Your task to perform on an android device: Search for seafood restaurants on Google Maps Image 0: 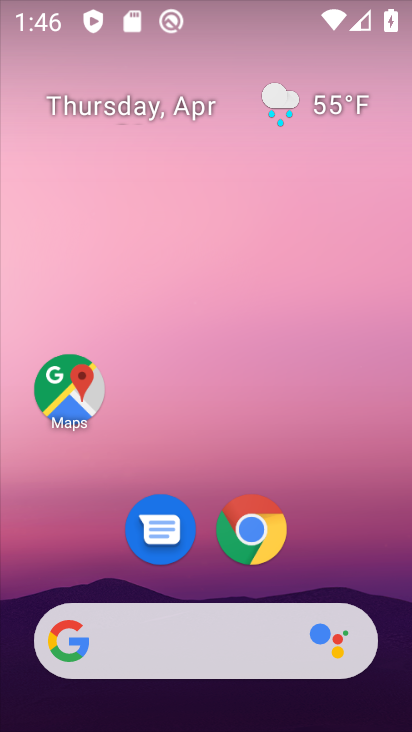
Step 0: click (45, 402)
Your task to perform on an android device: Search for seafood restaurants on Google Maps Image 1: 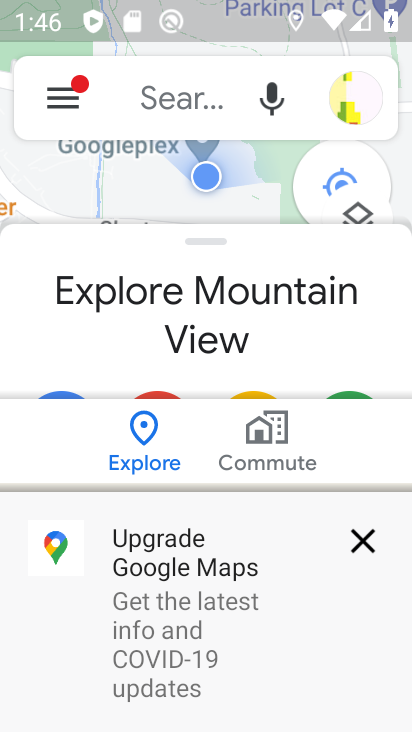
Step 1: click (177, 93)
Your task to perform on an android device: Search for seafood restaurants on Google Maps Image 2: 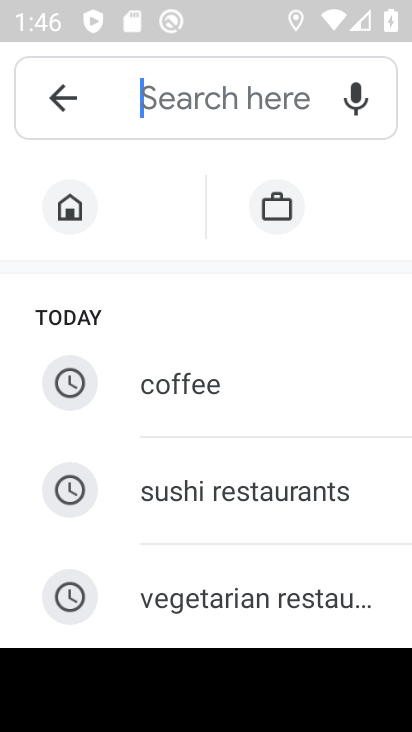
Step 2: drag from (247, 611) to (241, 298)
Your task to perform on an android device: Search for seafood restaurants on Google Maps Image 3: 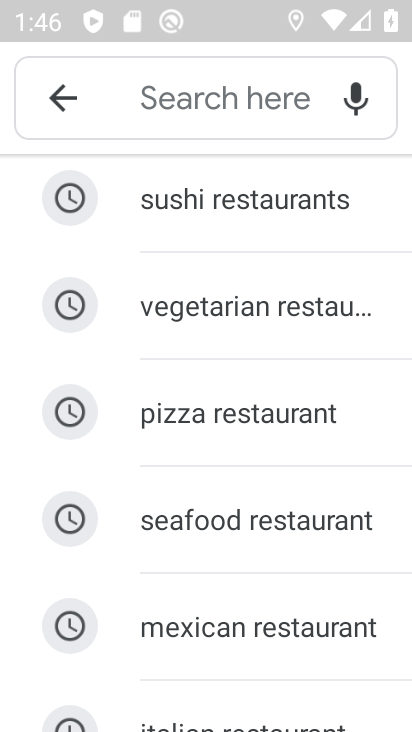
Step 3: click (285, 540)
Your task to perform on an android device: Search for seafood restaurants on Google Maps Image 4: 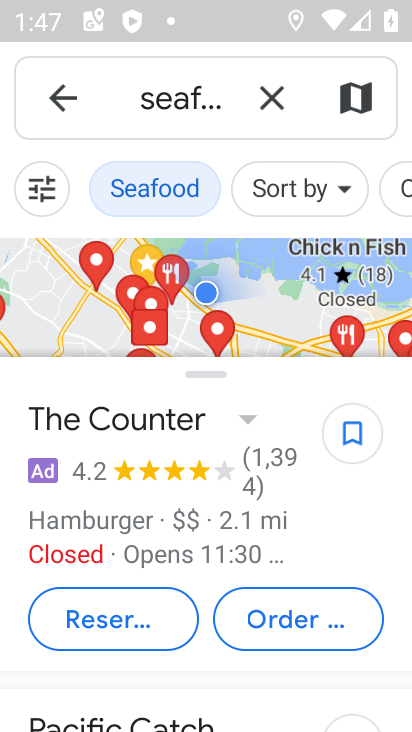
Step 4: task complete